Your task to perform on an android device: turn off wifi Image 0: 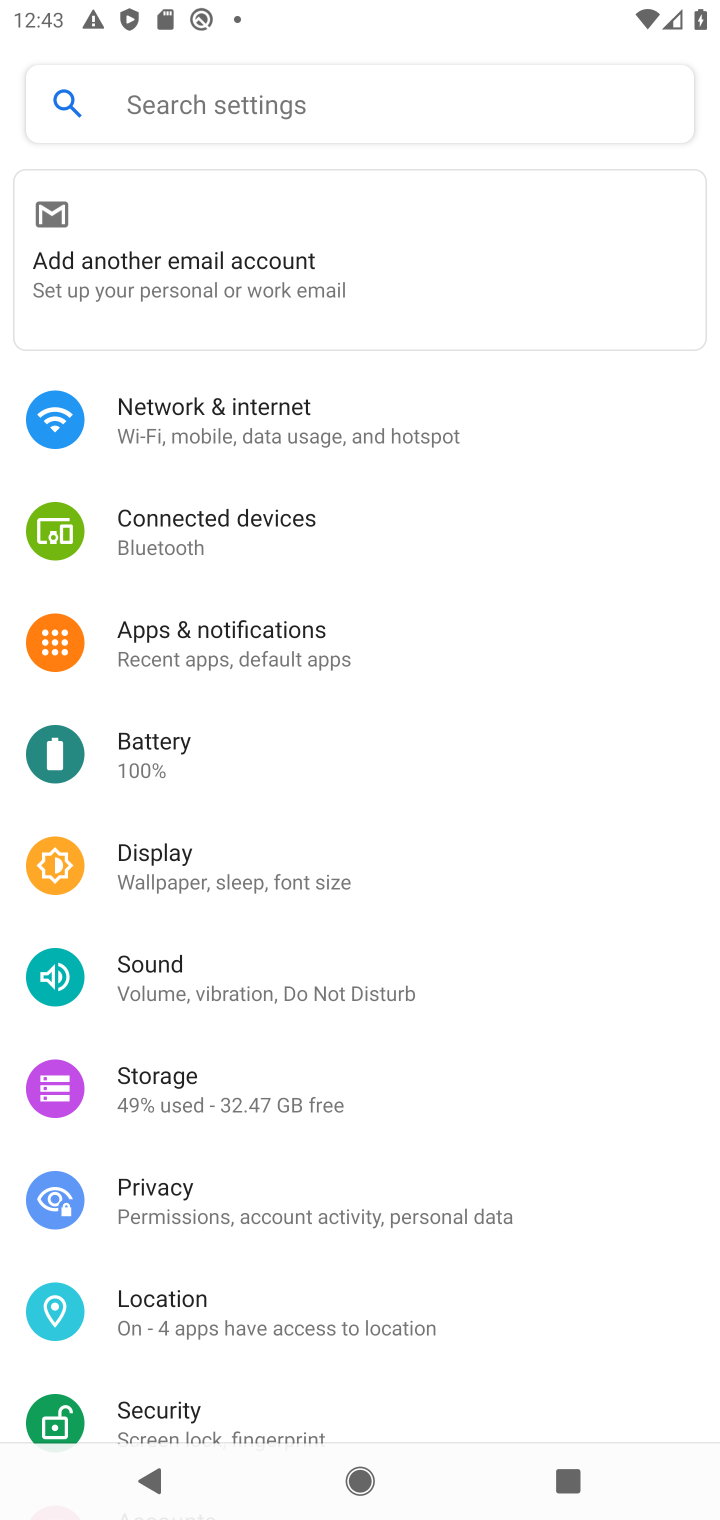
Step 0: press back button
Your task to perform on an android device: turn off wifi Image 1: 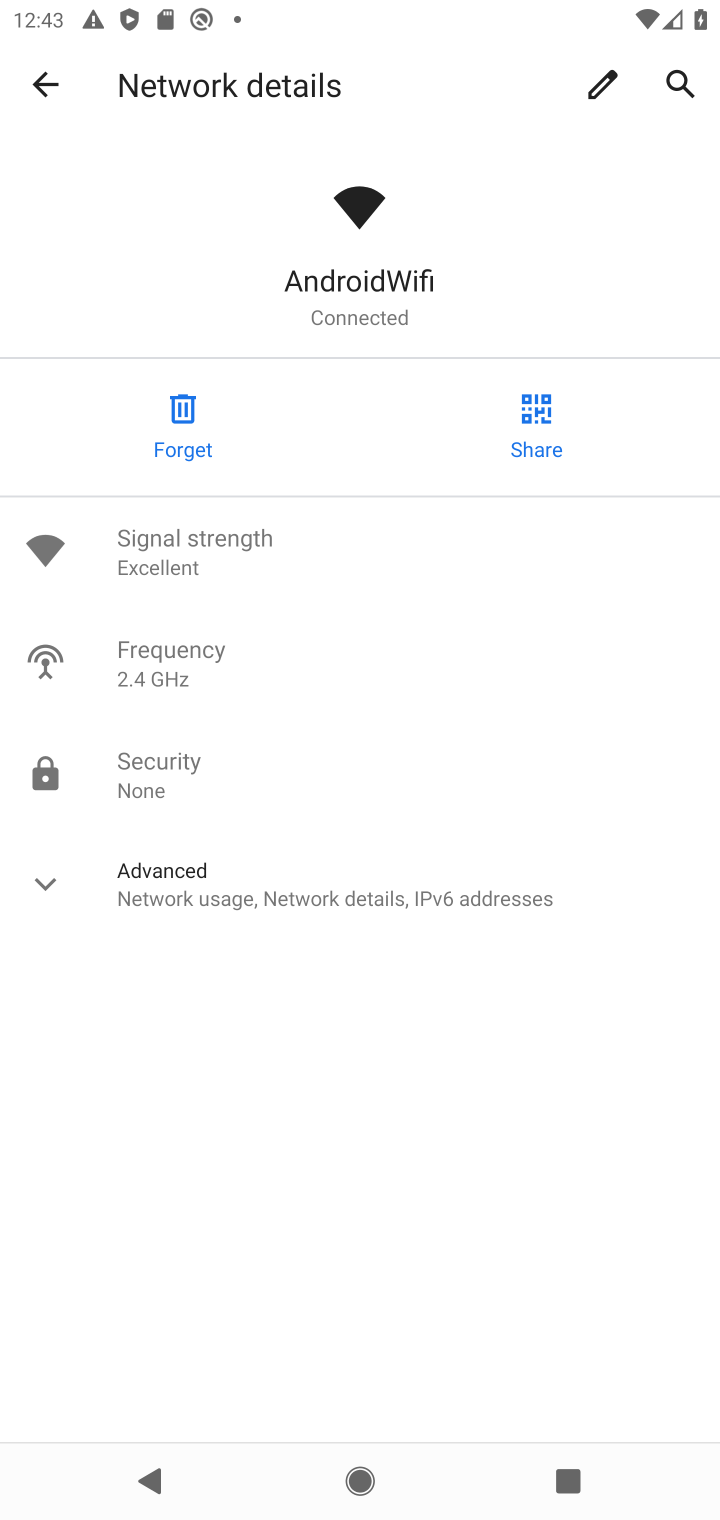
Step 1: press home button
Your task to perform on an android device: turn off wifi Image 2: 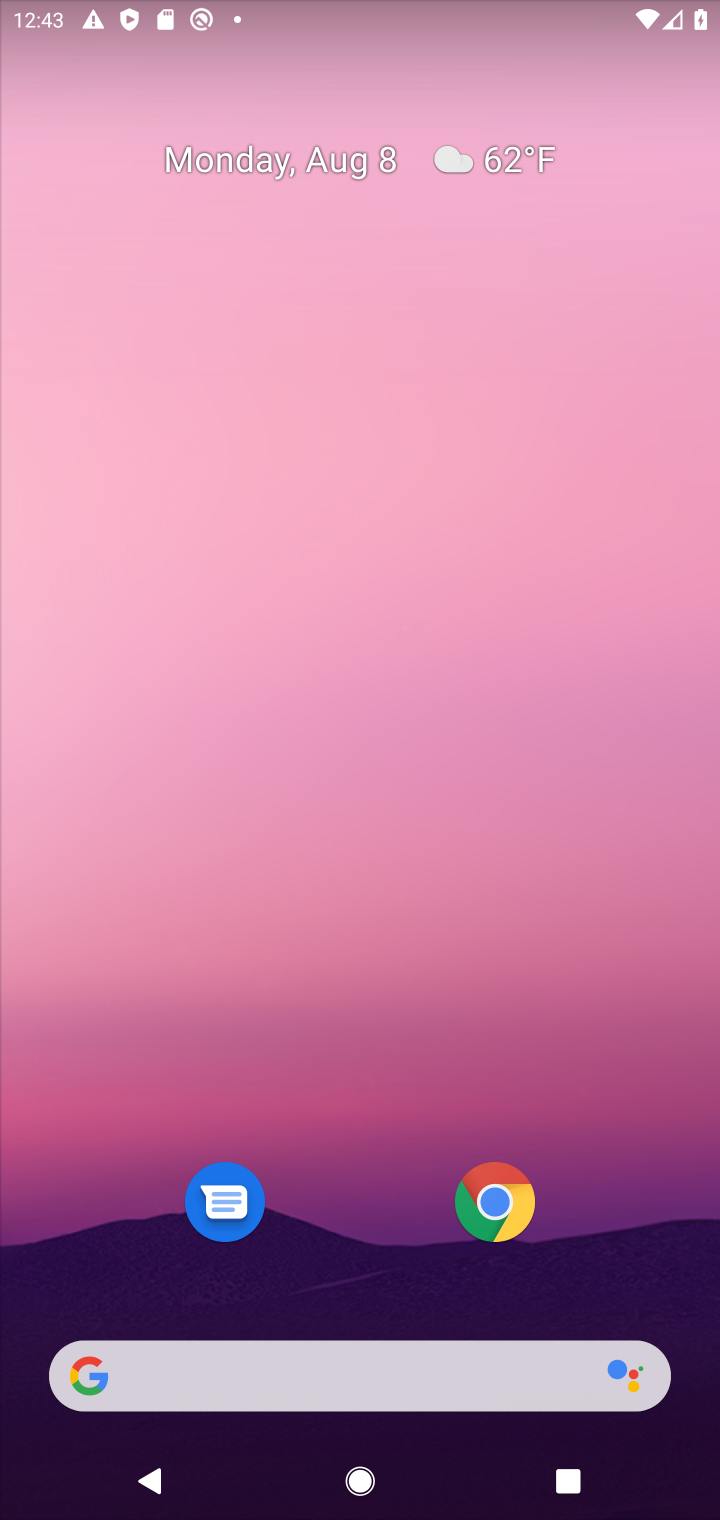
Step 2: click (376, 10)
Your task to perform on an android device: turn off wifi Image 3: 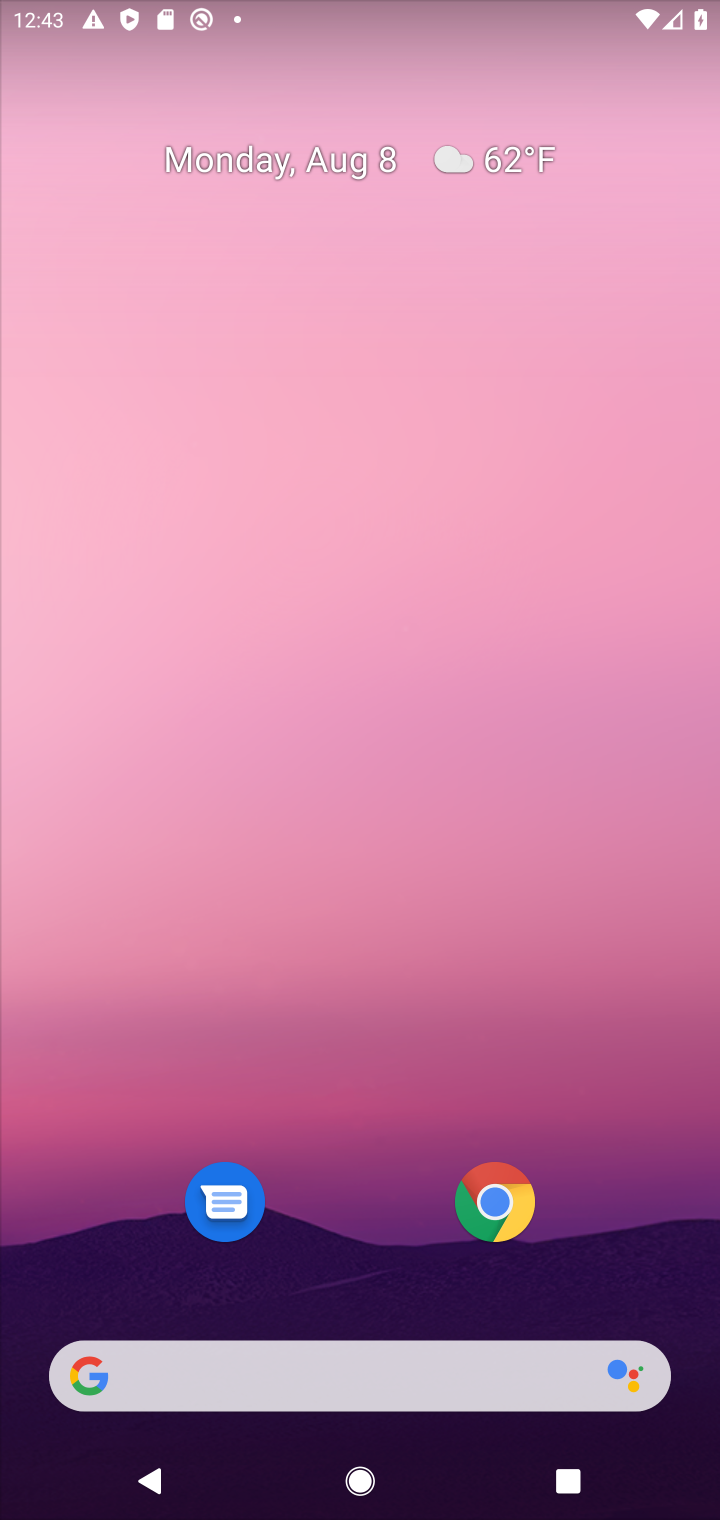
Step 3: drag from (324, 1173) to (266, 204)
Your task to perform on an android device: turn off wifi Image 4: 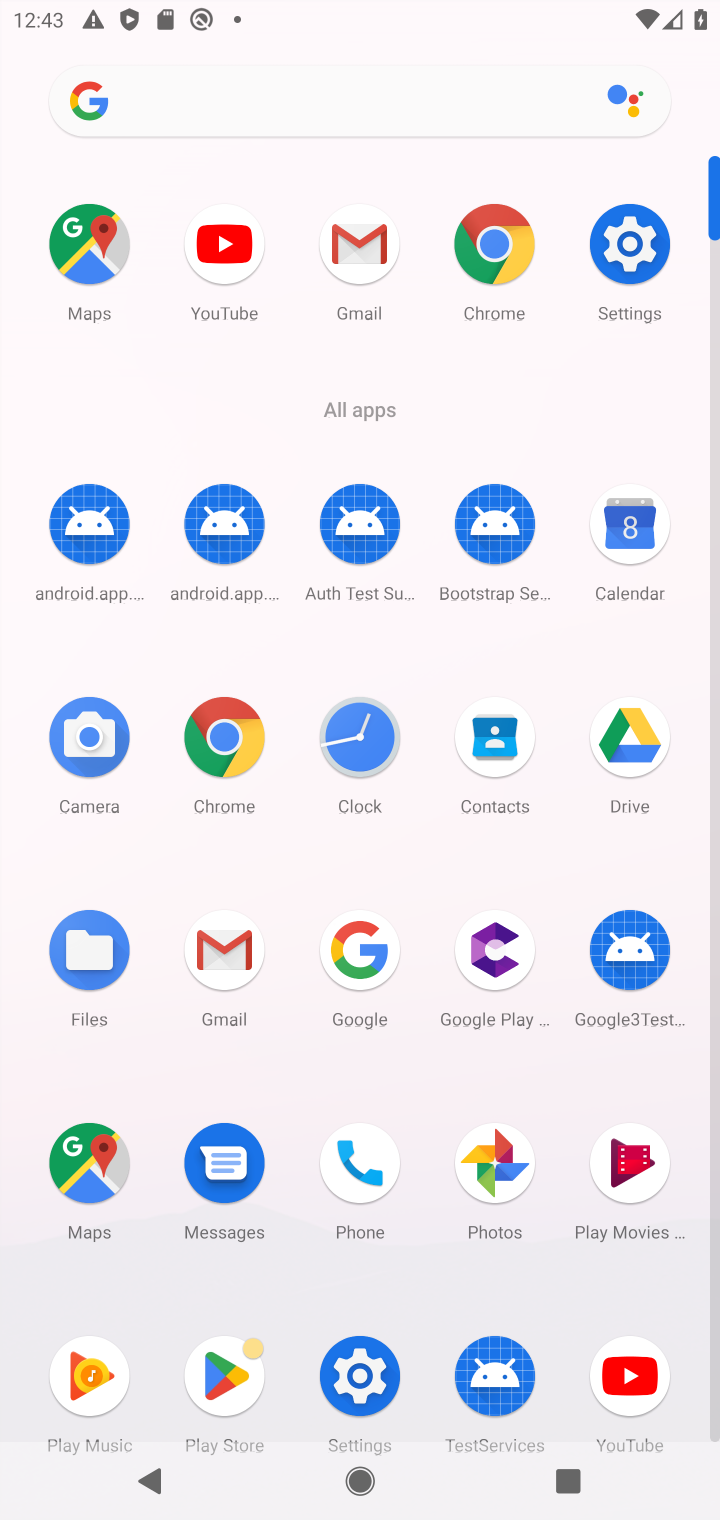
Step 4: click (632, 244)
Your task to perform on an android device: turn off wifi Image 5: 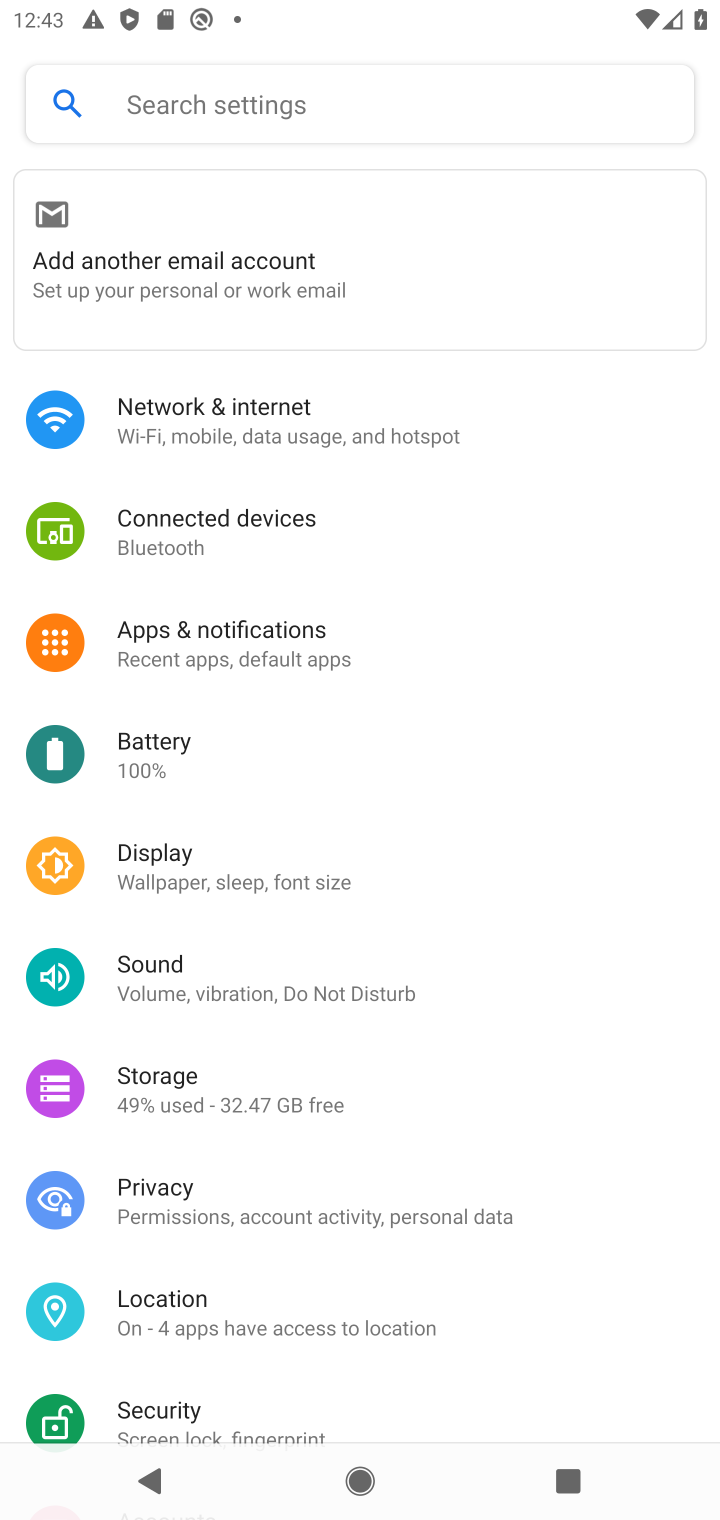
Step 5: click (86, 429)
Your task to perform on an android device: turn off wifi Image 6: 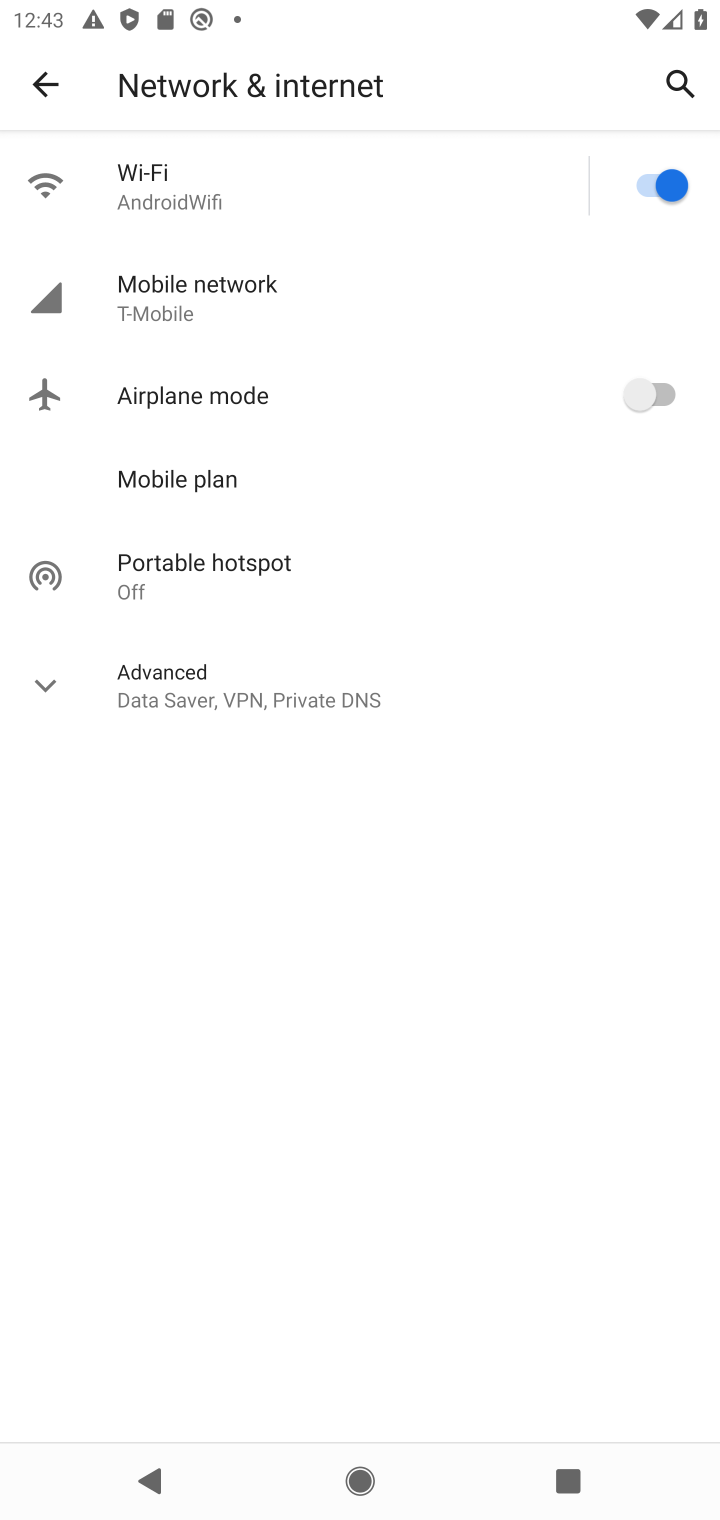
Step 6: click (627, 194)
Your task to perform on an android device: turn off wifi Image 7: 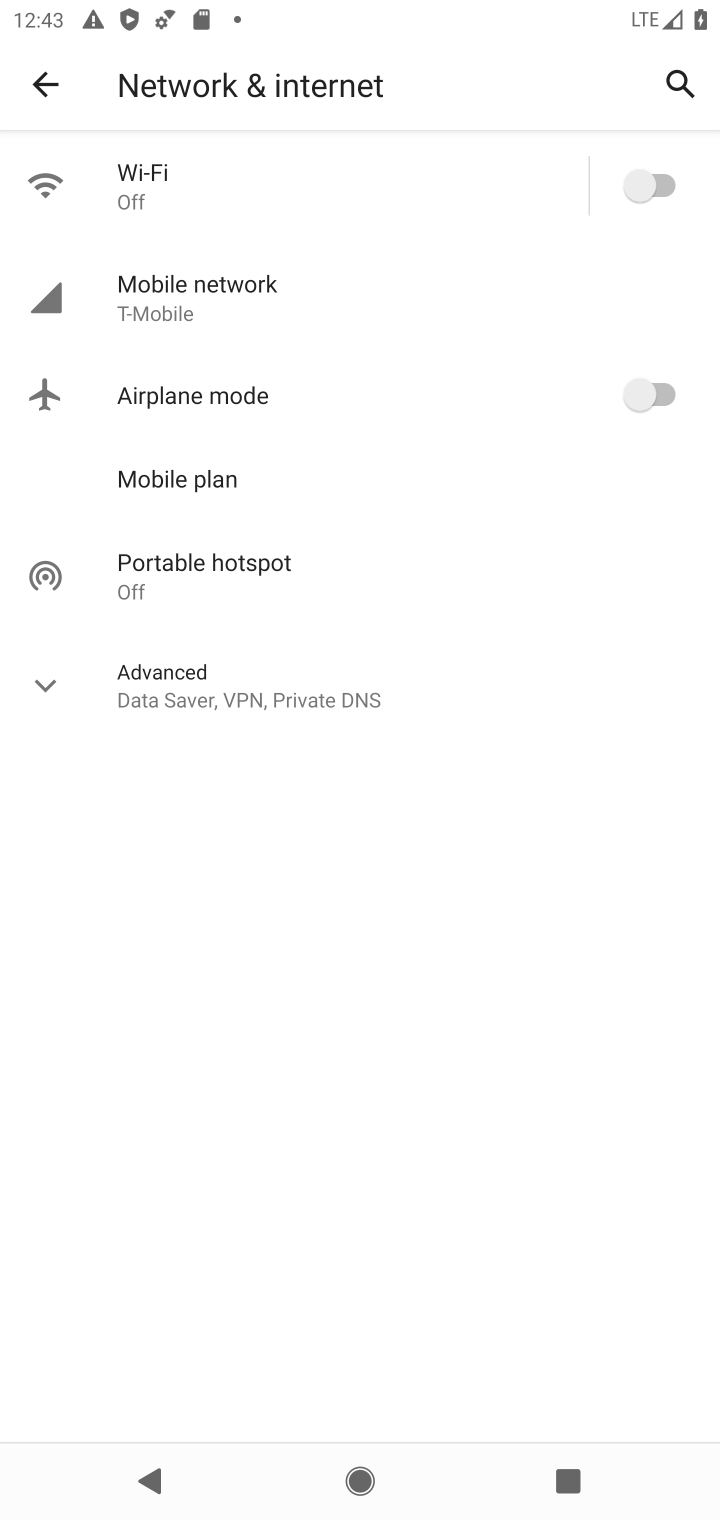
Step 7: task complete